Your task to perform on an android device: Go to Yahoo.com Image 0: 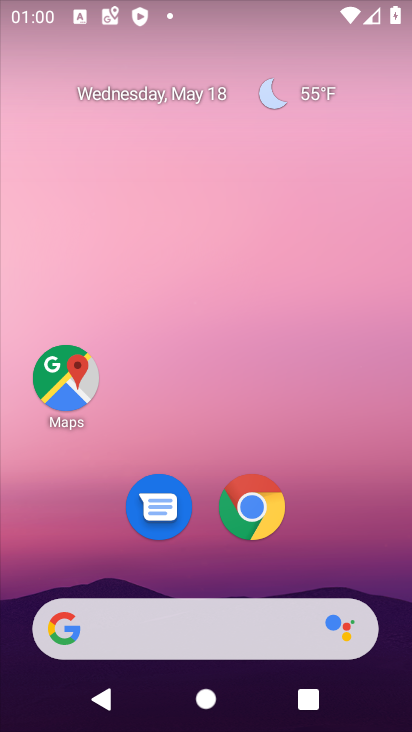
Step 0: click (252, 511)
Your task to perform on an android device: Go to Yahoo.com Image 1: 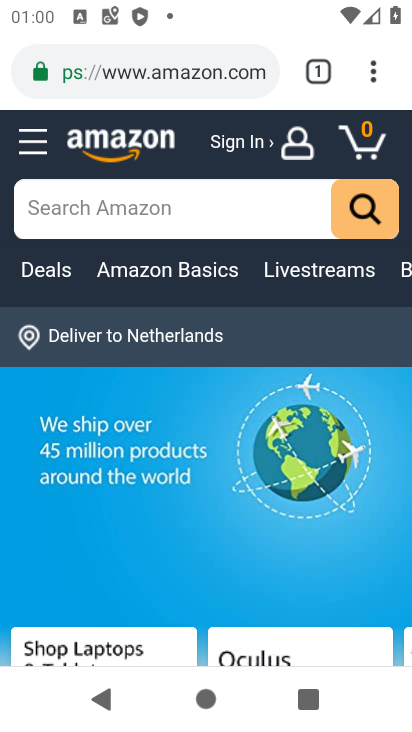
Step 1: click (147, 70)
Your task to perform on an android device: Go to Yahoo.com Image 2: 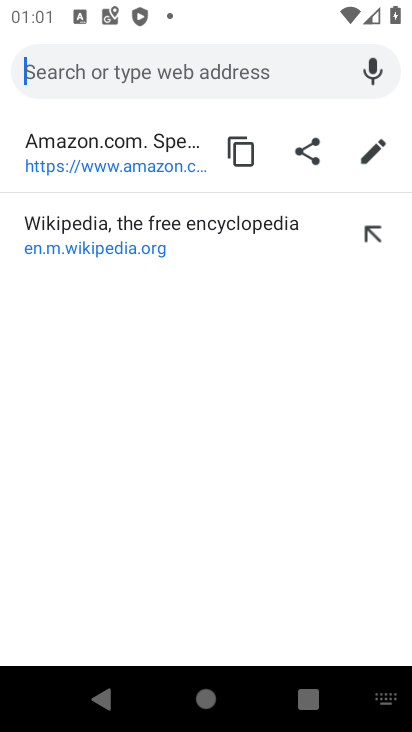
Step 2: type "yahoo.com"
Your task to perform on an android device: Go to Yahoo.com Image 3: 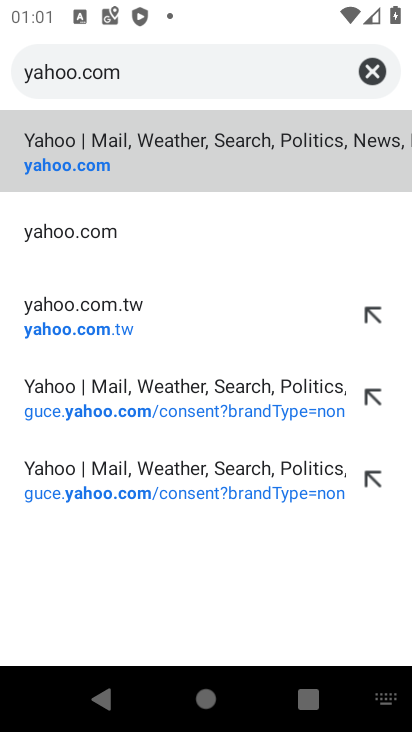
Step 3: click (143, 162)
Your task to perform on an android device: Go to Yahoo.com Image 4: 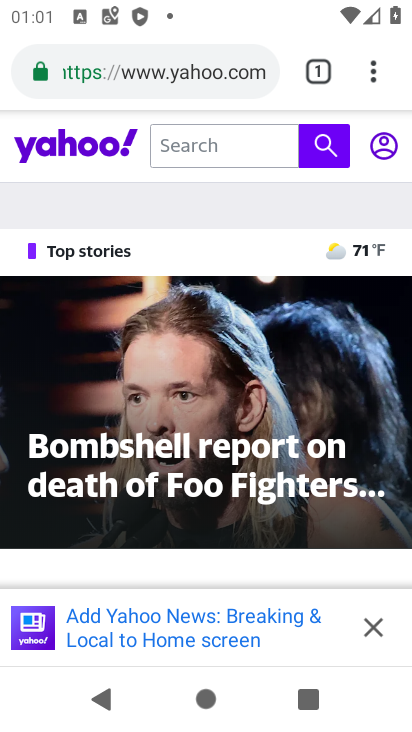
Step 4: task complete